Your task to perform on an android device: Open accessibility settings Image 0: 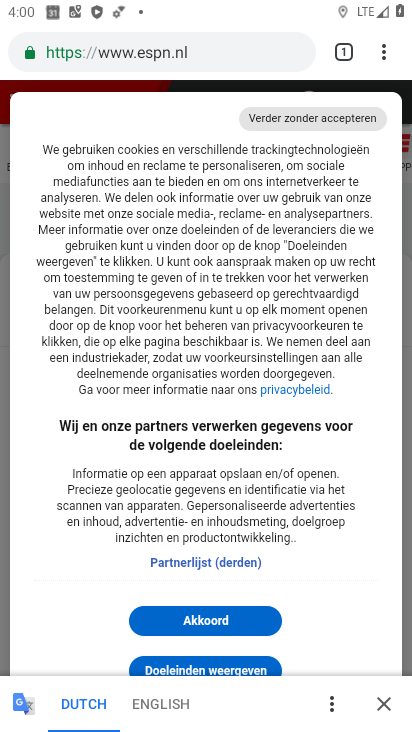
Step 0: drag from (222, 721) to (222, 268)
Your task to perform on an android device: Open accessibility settings Image 1: 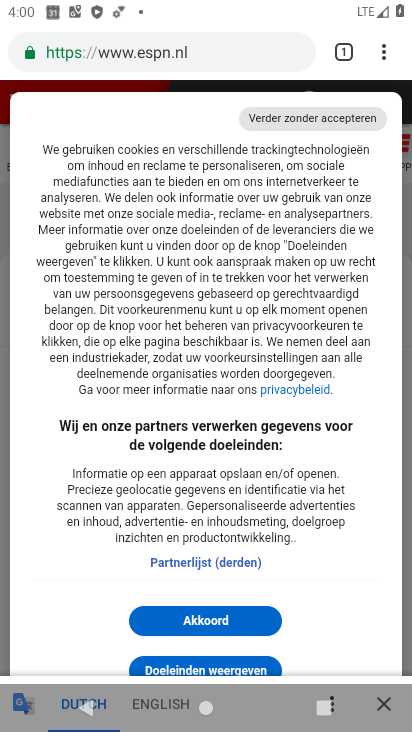
Step 1: press home button
Your task to perform on an android device: Open accessibility settings Image 2: 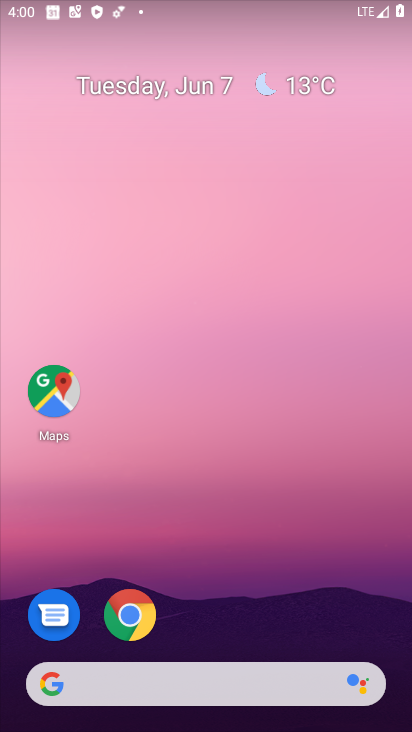
Step 2: drag from (257, 717) to (256, 266)
Your task to perform on an android device: Open accessibility settings Image 3: 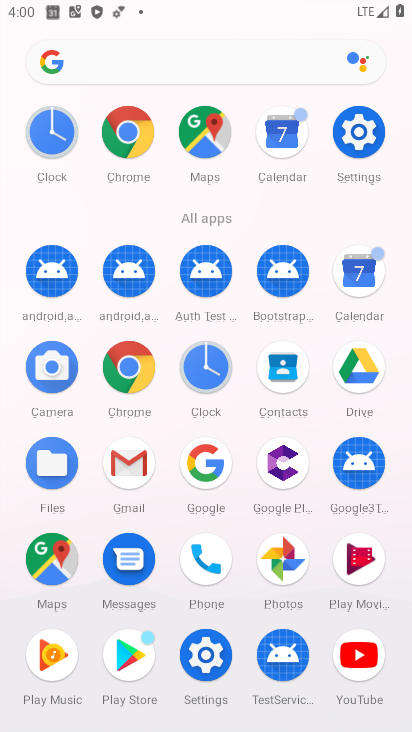
Step 3: click (361, 137)
Your task to perform on an android device: Open accessibility settings Image 4: 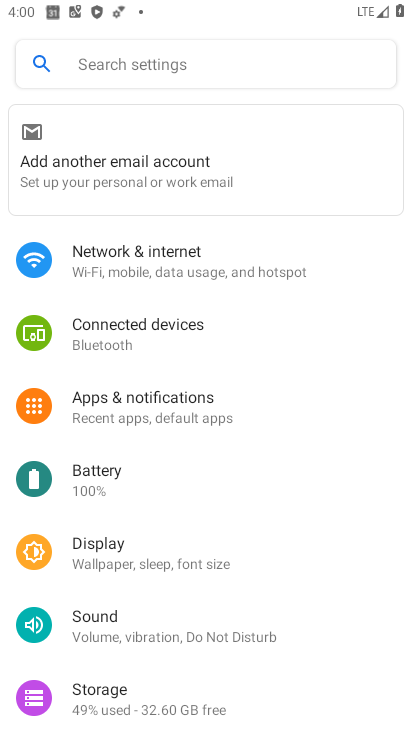
Step 4: drag from (143, 707) to (143, 228)
Your task to perform on an android device: Open accessibility settings Image 5: 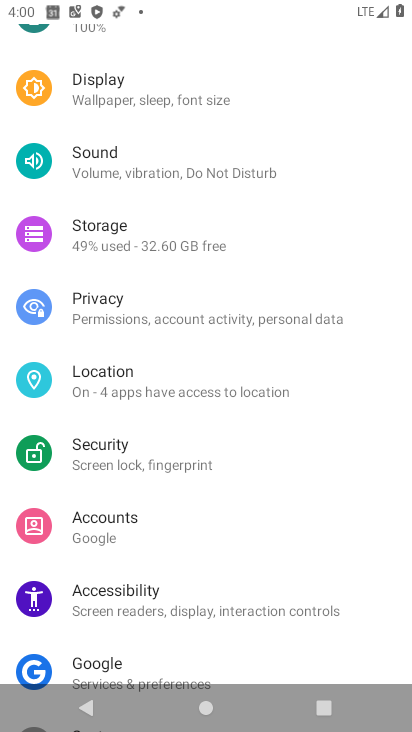
Step 5: click (114, 581)
Your task to perform on an android device: Open accessibility settings Image 6: 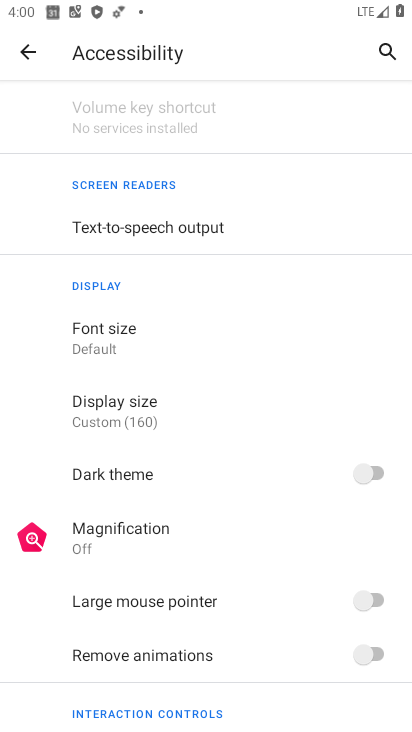
Step 6: task complete